Your task to perform on an android device: Open battery settings Image 0: 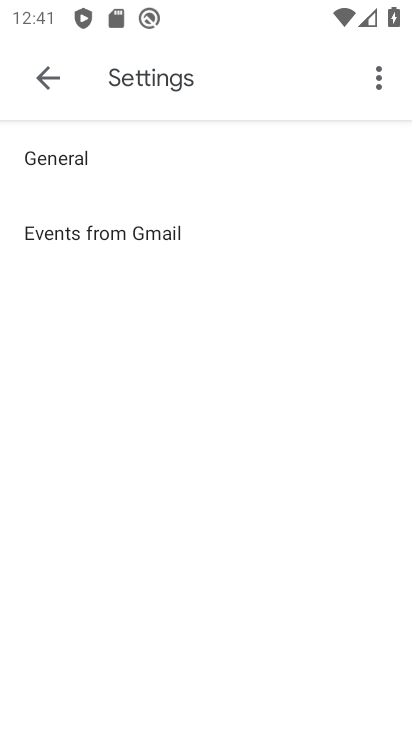
Step 0: press home button
Your task to perform on an android device: Open battery settings Image 1: 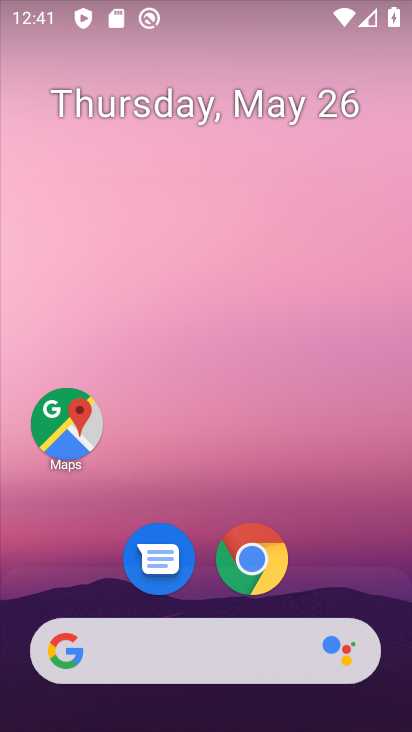
Step 1: drag from (175, 660) to (295, 7)
Your task to perform on an android device: Open battery settings Image 2: 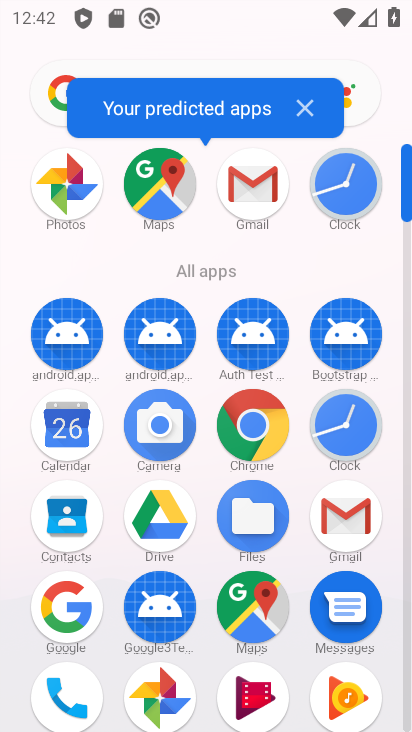
Step 2: drag from (196, 566) to (331, 125)
Your task to perform on an android device: Open battery settings Image 3: 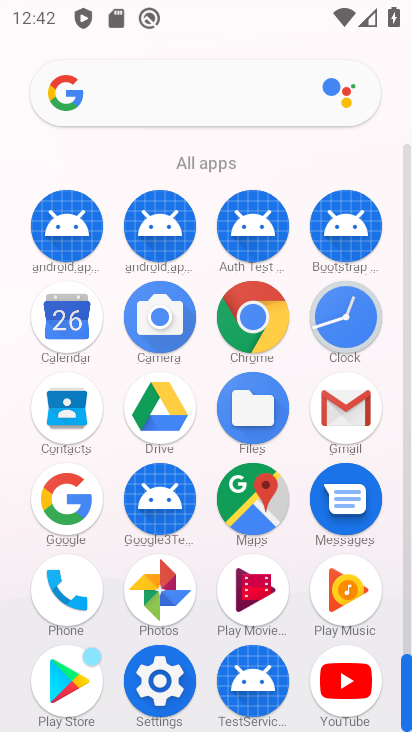
Step 3: click (169, 671)
Your task to perform on an android device: Open battery settings Image 4: 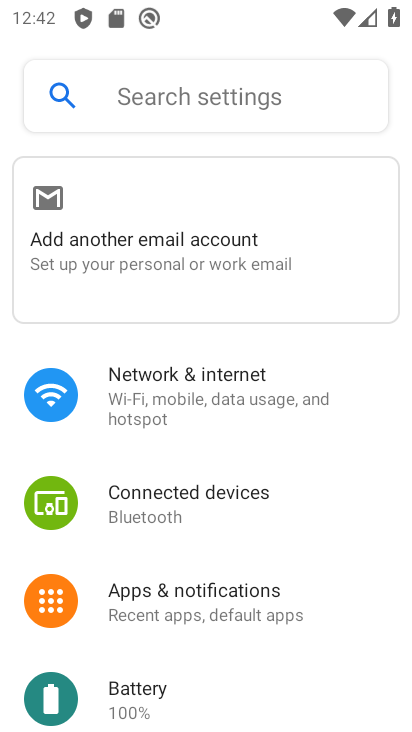
Step 4: click (151, 702)
Your task to perform on an android device: Open battery settings Image 5: 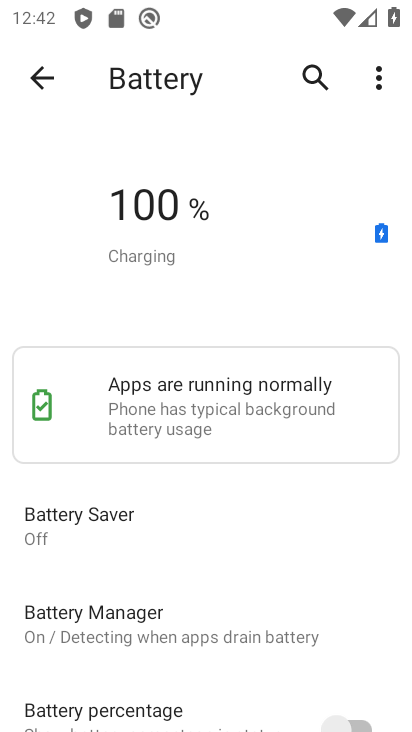
Step 5: task complete